Your task to perform on an android device: Set the phone to "Do not disturb". Image 0: 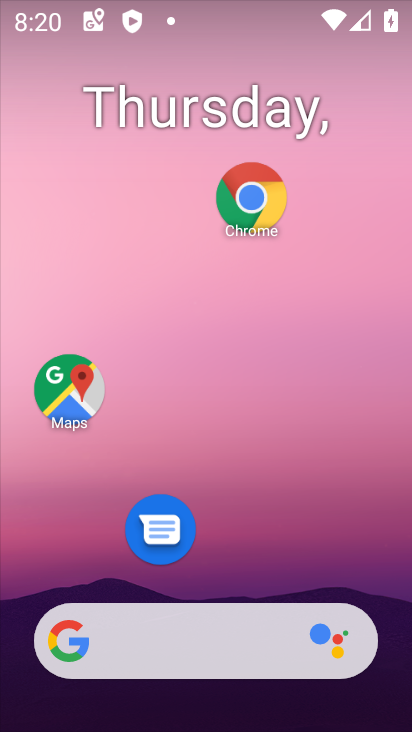
Step 0: drag from (222, 550) to (144, 10)
Your task to perform on an android device: Set the phone to "Do not disturb". Image 1: 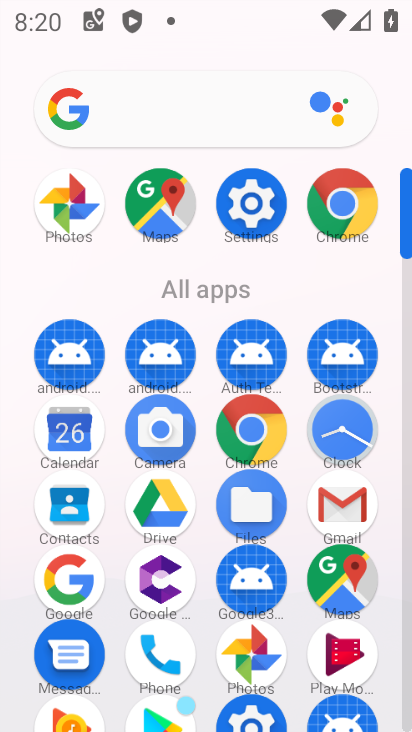
Step 1: click (246, 199)
Your task to perform on an android device: Set the phone to "Do not disturb". Image 2: 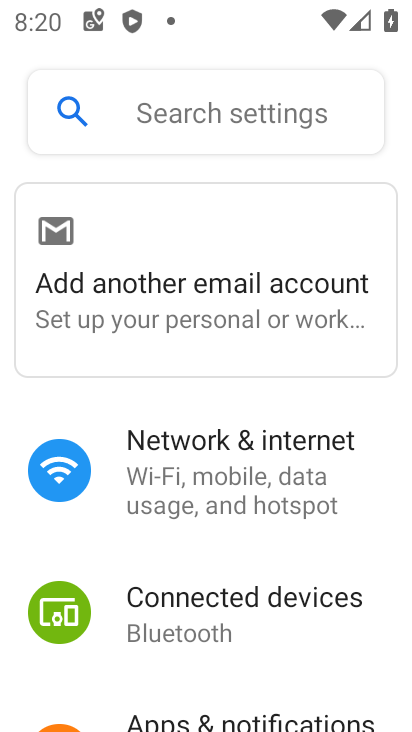
Step 2: drag from (231, 529) to (224, 369)
Your task to perform on an android device: Set the phone to "Do not disturb". Image 3: 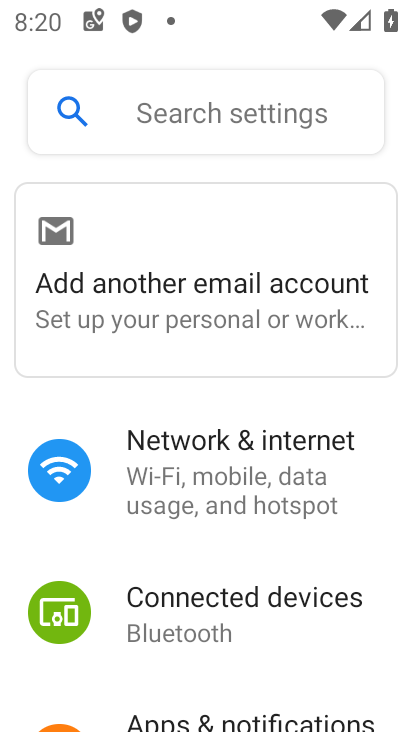
Step 3: drag from (231, 595) to (231, 306)
Your task to perform on an android device: Set the phone to "Do not disturb". Image 4: 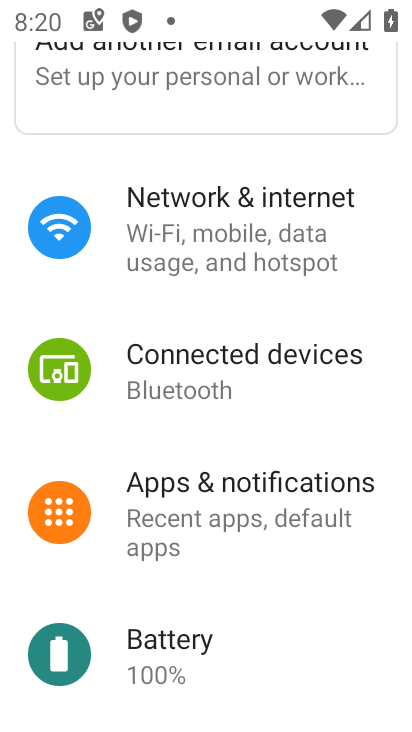
Step 4: drag from (226, 610) to (226, 357)
Your task to perform on an android device: Set the phone to "Do not disturb". Image 5: 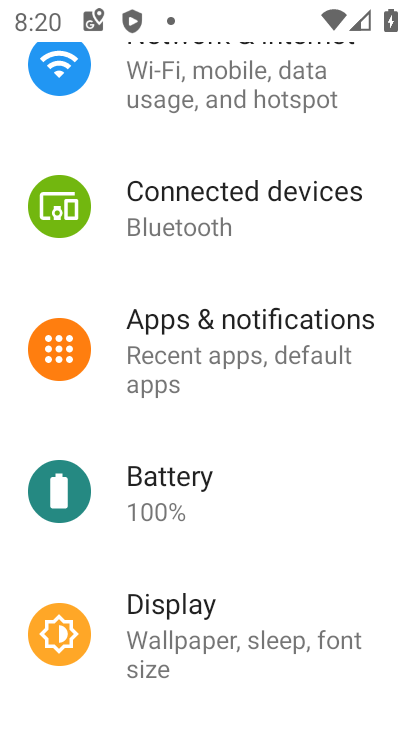
Step 5: drag from (249, 551) to (249, 248)
Your task to perform on an android device: Set the phone to "Do not disturb". Image 6: 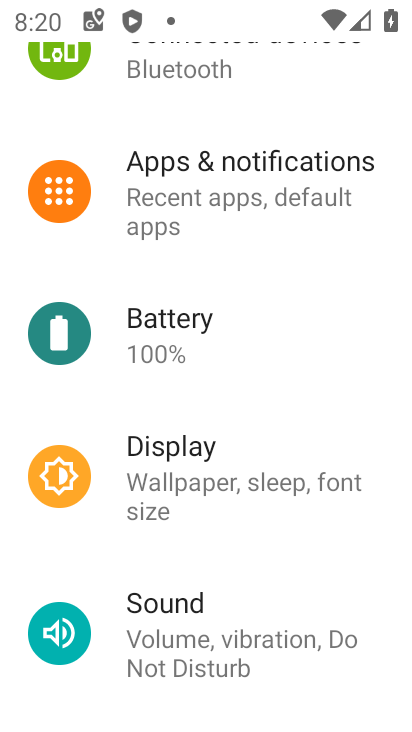
Step 6: click (172, 601)
Your task to perform on an android device: Set the phone to "Do not disturb". Image 7: 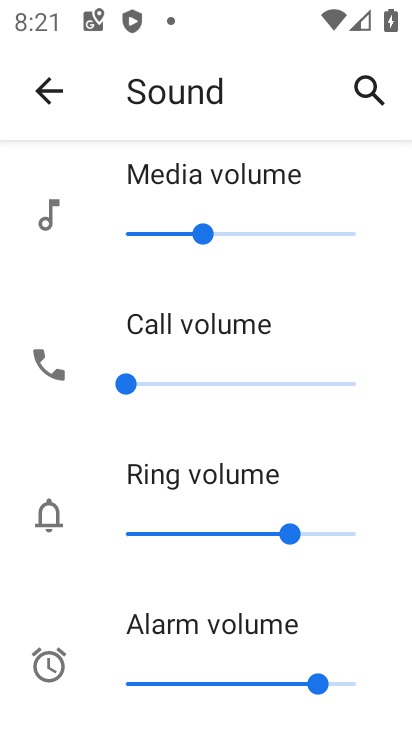
Step 7: click (216, 650)
Your task to perform on an android device: Set the phone to "Do not disturb". Image 8: 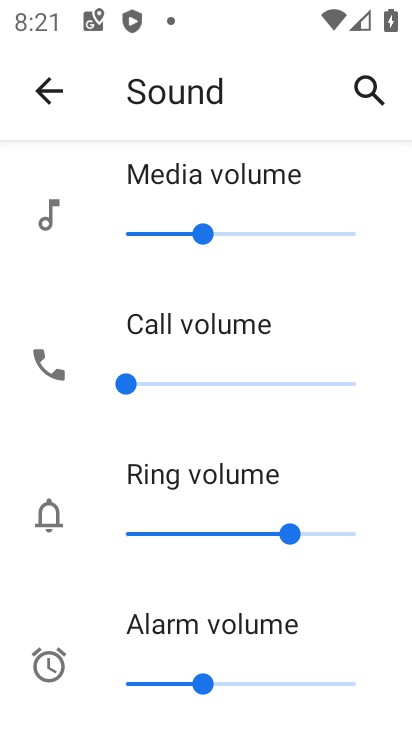
Step 8: drag from (282, 542) to (266, 258)
Your task to perform on an android device: Set the phone to "Do not disturb". Image 9: 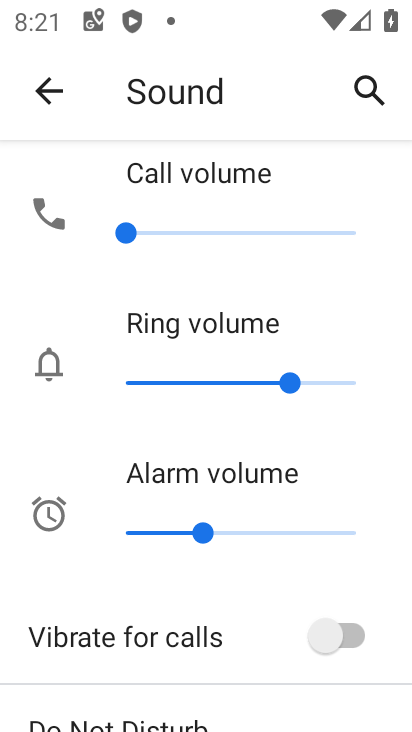
Step 9: drag from (244, 627) to (256, 293)
Your task to perform on an android device: Set the phone to "Do not disturb". Image 10: 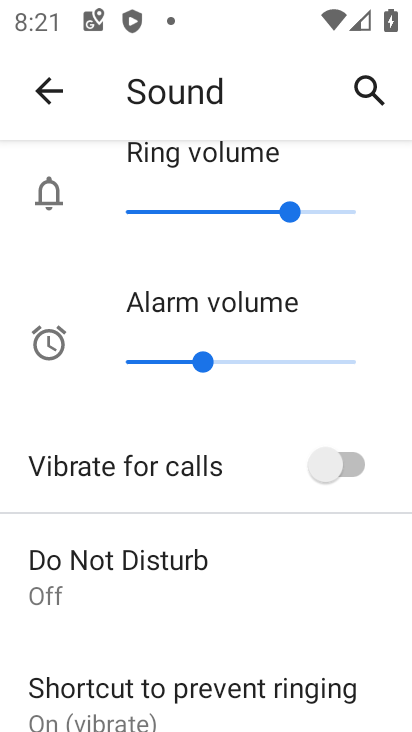
Step 10: click (100, 579)
Your task to perform on an android device: Set the phone to "Do not disturb". Image 11: 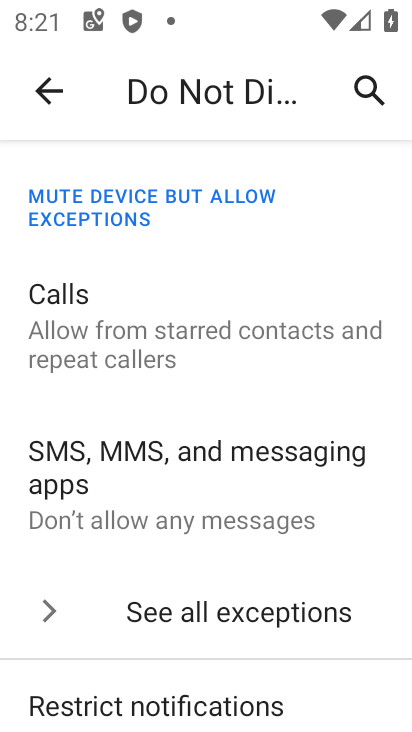
Step 11: drag from (221, 650) to (251, 322)
Your task to perform on an android device: Set the phone to "Do not disturb". Image 12: 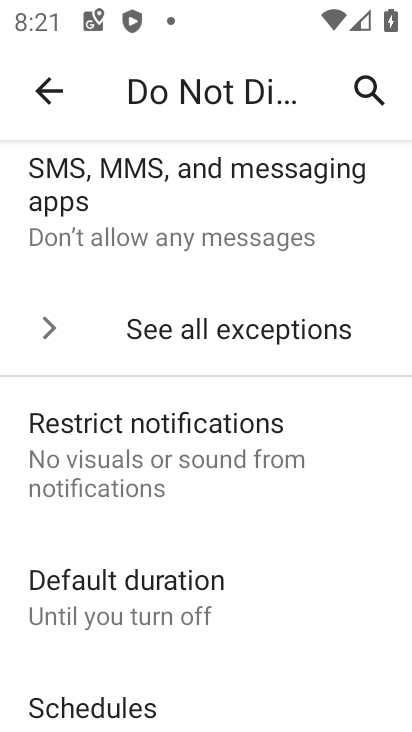
Step 12: drag from (228, 494) to (276, 186)
Your task to perform on an android device: Set the phone to "Do not disturb". Image 13: 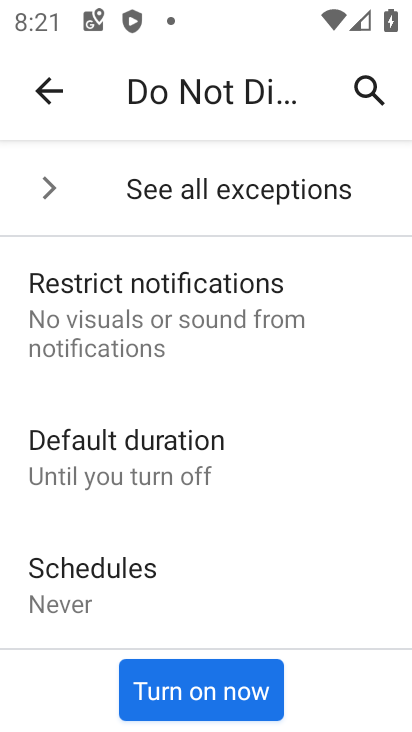
Step 13: click (197, 701)
Your task to perform on an android device: Set the phone to "Do not disturb". Image 14: 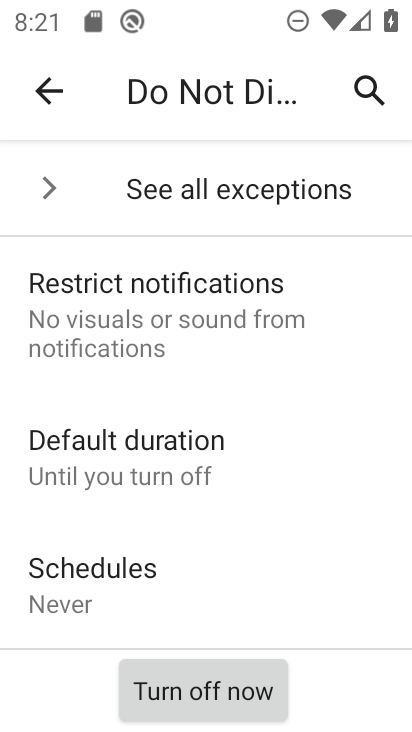
Step 14: task complete